Your task to perform on an android device: change timer sound Image 0: 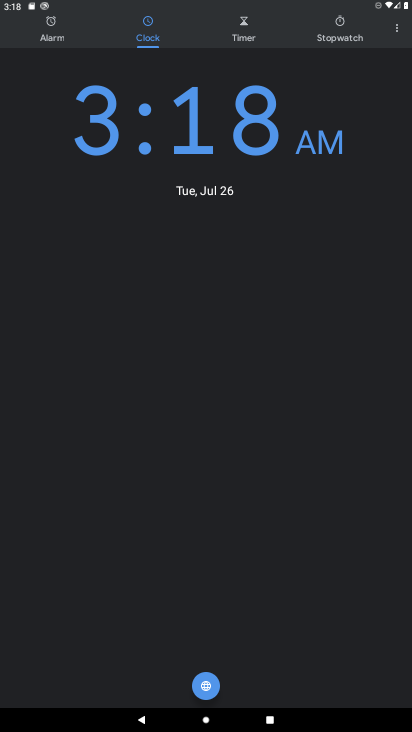
Step 0: press home button
Your task to perform on an android device: change timer sound Image 1: 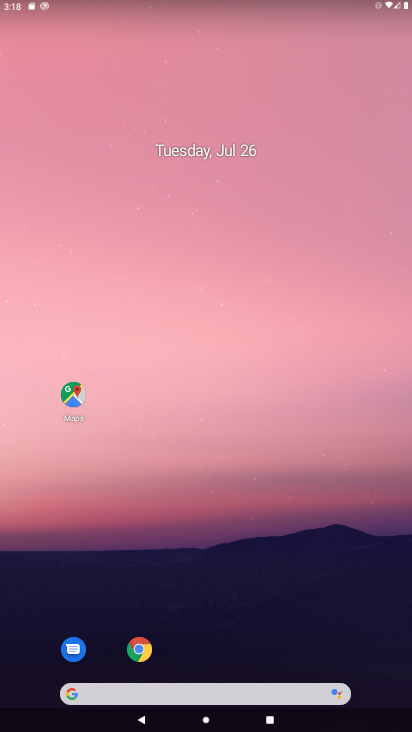
Step 1: drag from (207, 694) to (206, 183)
Your task to perform on an android device: change timer sound Image 2: 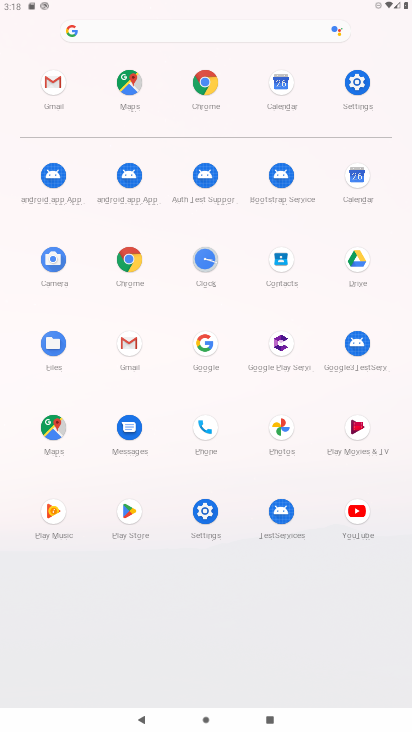
Step 2: click (209, 254)
Your task to perform on an android device: change timer sound Image 3: 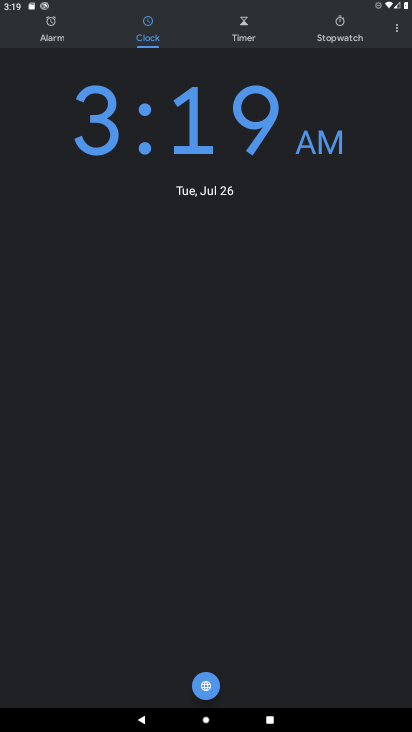
Step 3: click (400, 34)
Your task to perform on an android device: change timer sound Image 4: 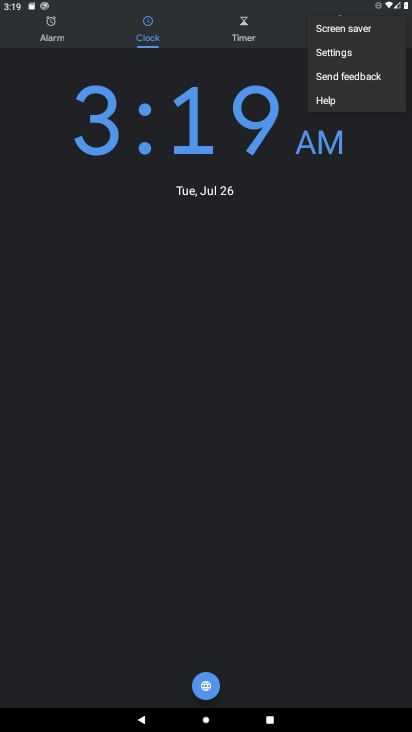
Step 4: click (352, 53)
Your task to perform on an android device: change timer sound Image 5: 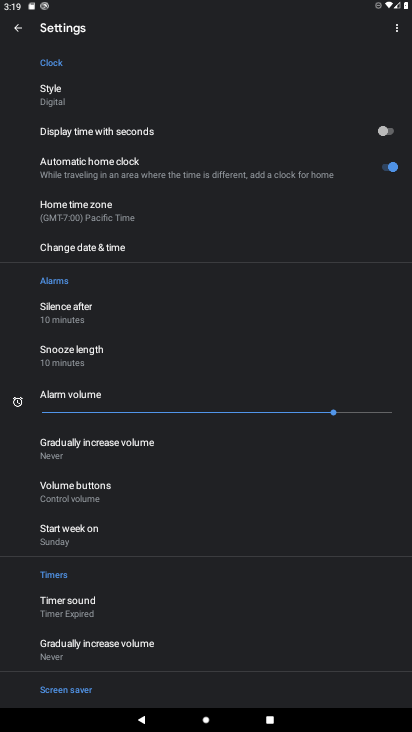
Step 5: click (133, 599)
Your task to perform on an android device: change timer sound Image 6: 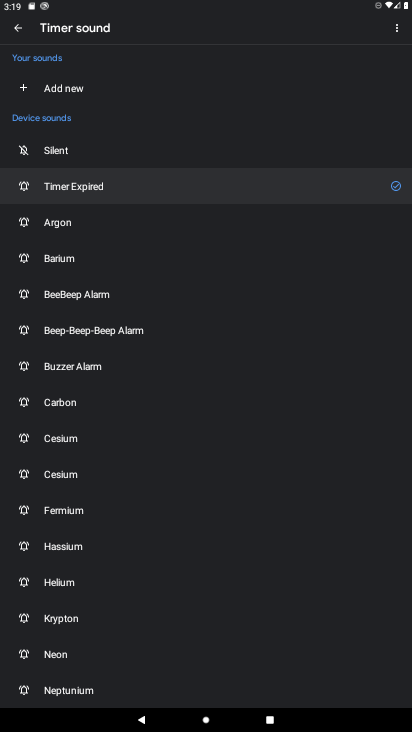
Step 6: click (96, 334)
Your task to perform on an android device: change timer sound Image 7: 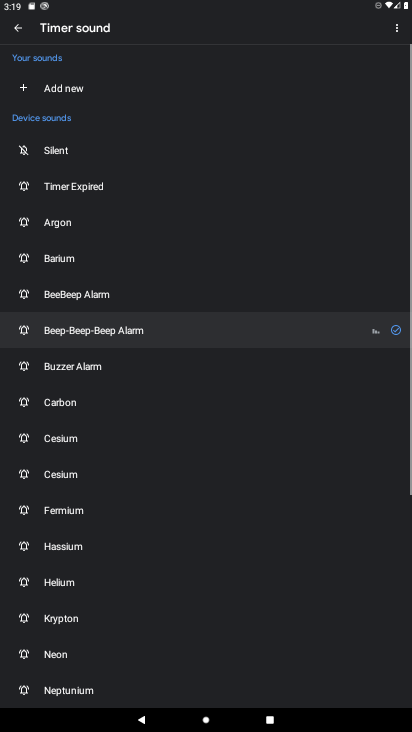
Step 7: task complete